Your task to perform on an android device: Clear the shopping cart on bestbuy. Search for logitech g pro on bestbuy, select the first entry, add it to the cart, then select checkout. Image 0: 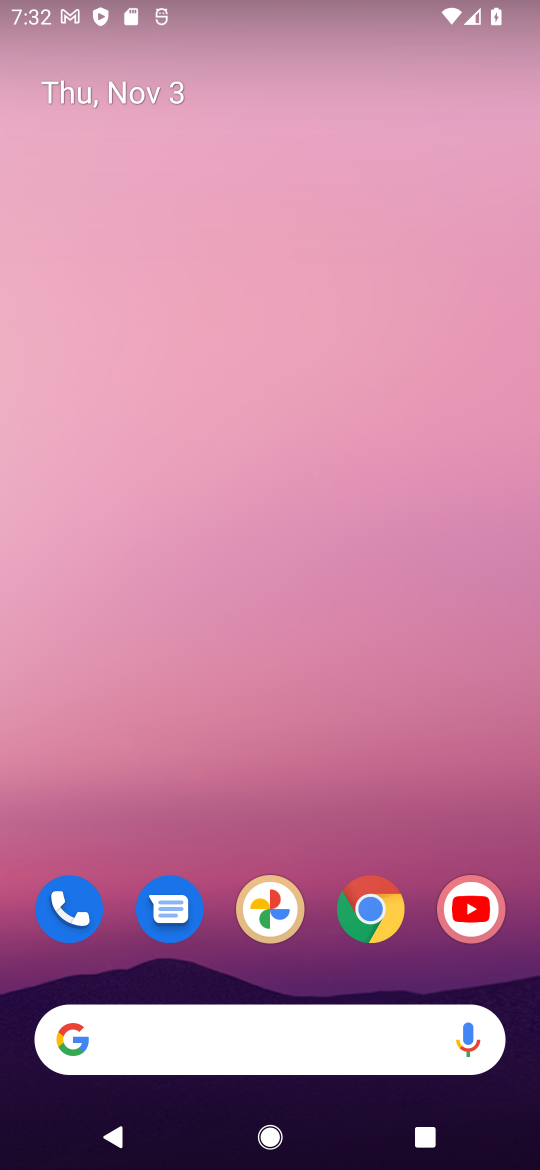
Step 0: drag from (217, 1016) to (255, 103)
Your task to perform on an android device: Clear the shopping cart on bestbuy. Search for logitech g pro on bestbuy, select the first entry, add it to the cart, then select checkout. Image 1: 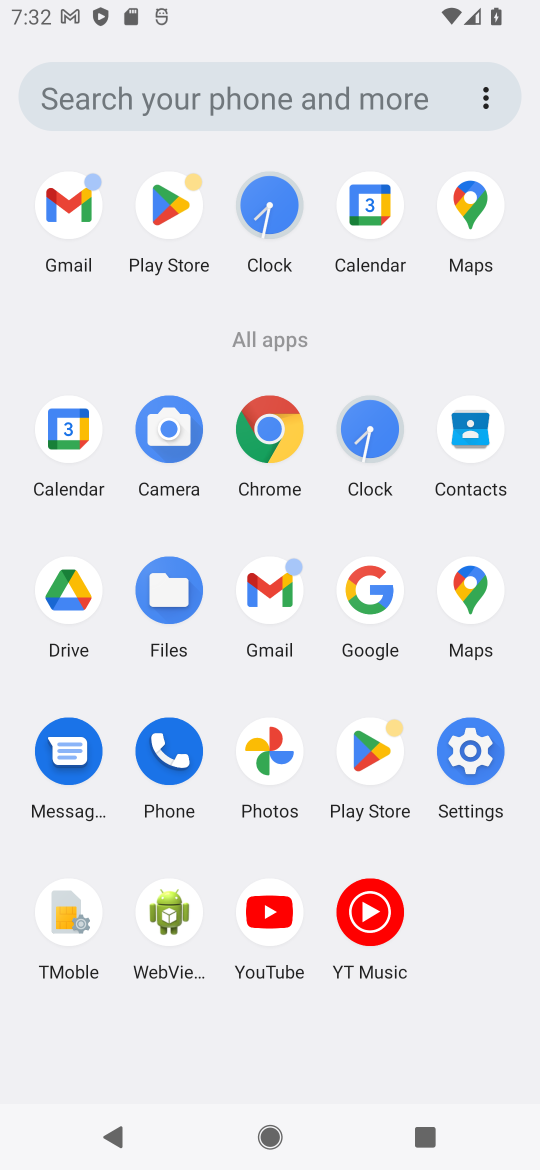
Step 1: click (376, 591)
Your task to perform on an android device: Clear the shopping cart on bestbuy. Search for logitech g pro on bestbuy, select the first entry, add it to the cart, then select checkout. Image 2: 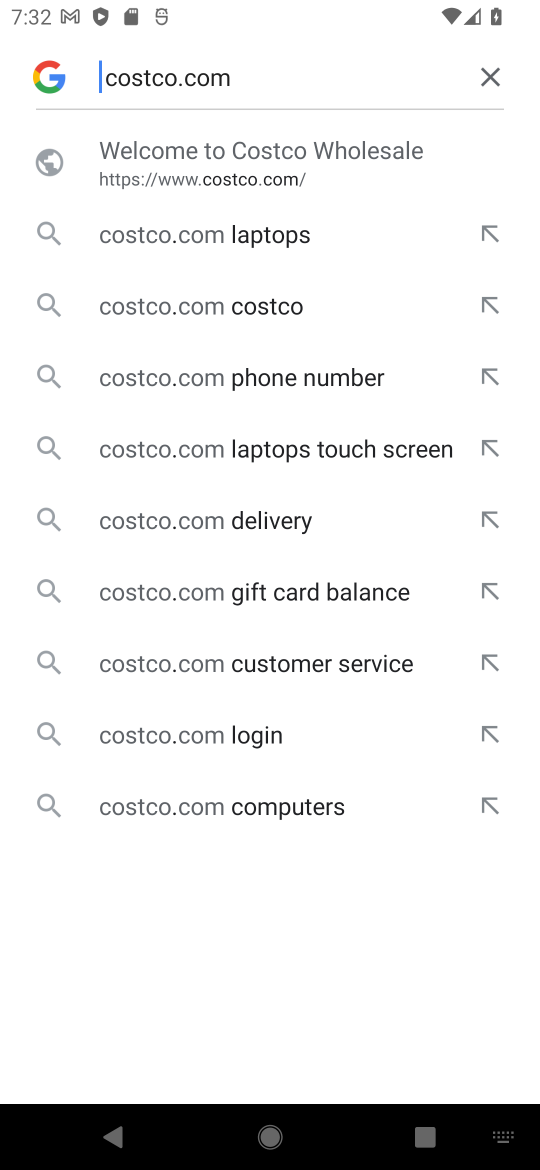
Step 2: click (497, 79)
Your task to perform on an android device: Clear the shopping cart on bestbuy. Search for logitech g pro on bestbuy, select the first entry, add it to the cart, then select checkout. Image 3: 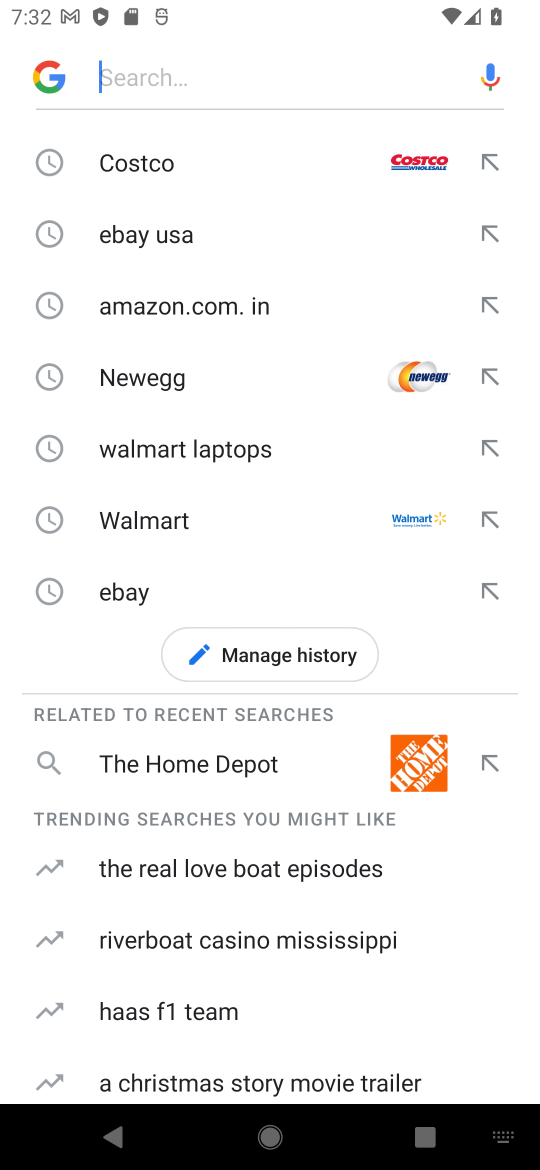
Step 3: click (285, 64)
Your task to perform on an android device: Clear the shopping cart on bestbuy. Search for logitech g pro on bestbuy, select the first entry, add it to the cart, then select checkout. Image 4: 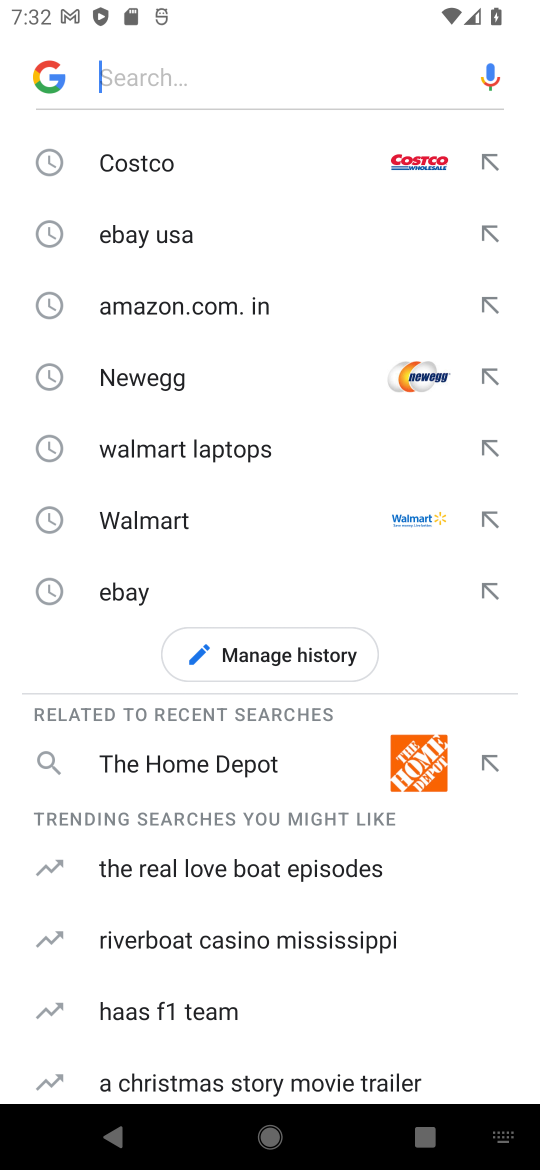
Step 4: type "bestbuy "
Your task to perform on an android device: Clear the shopping cart on bestbuy. Search for logitech g pro on bestbuy, select the first entry, add it to the cart, then select checkout. Image 5: 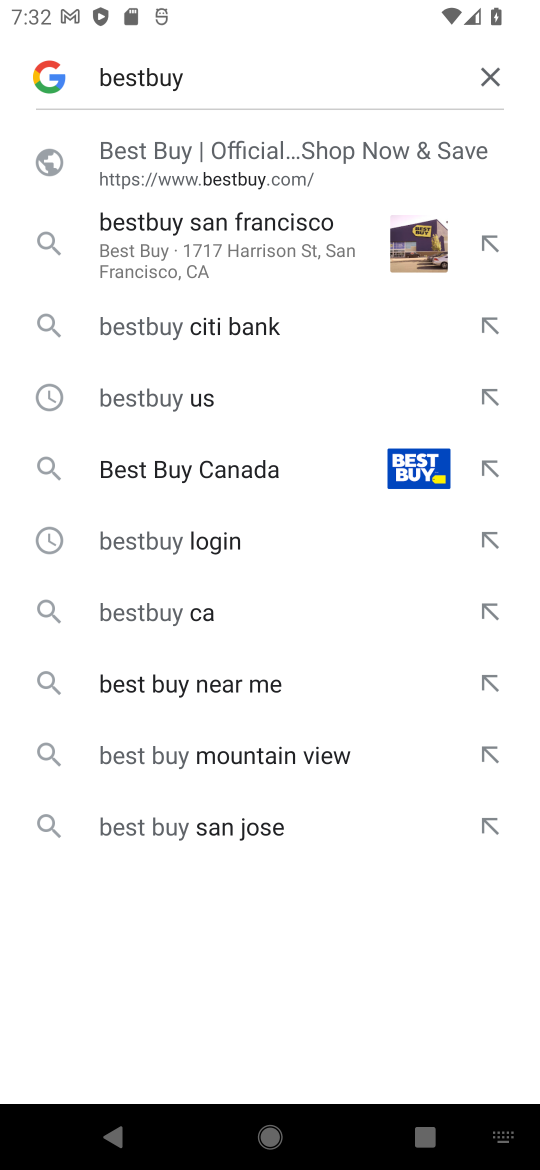
Step 5: click (288, 160)
Your task to perform on an android device: Clear the shopping cart on bestbuy. Search for logitech g pro on bestbuy, select the first entry, add it to the cart, then select checkout. Image 6: 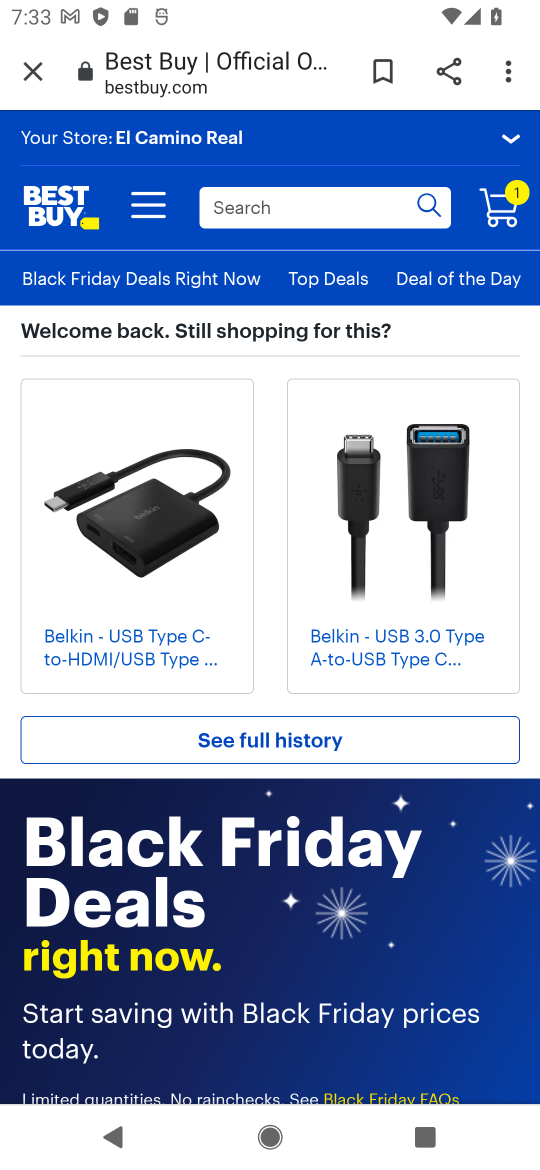
Step 6: click (329, 202)
Your task to perform on an android device: Clear the shopping cart on bestbuy. Search for logitech g pro on bestbuy, select the first entry, add it to the cart, then select checkout. Image 7: 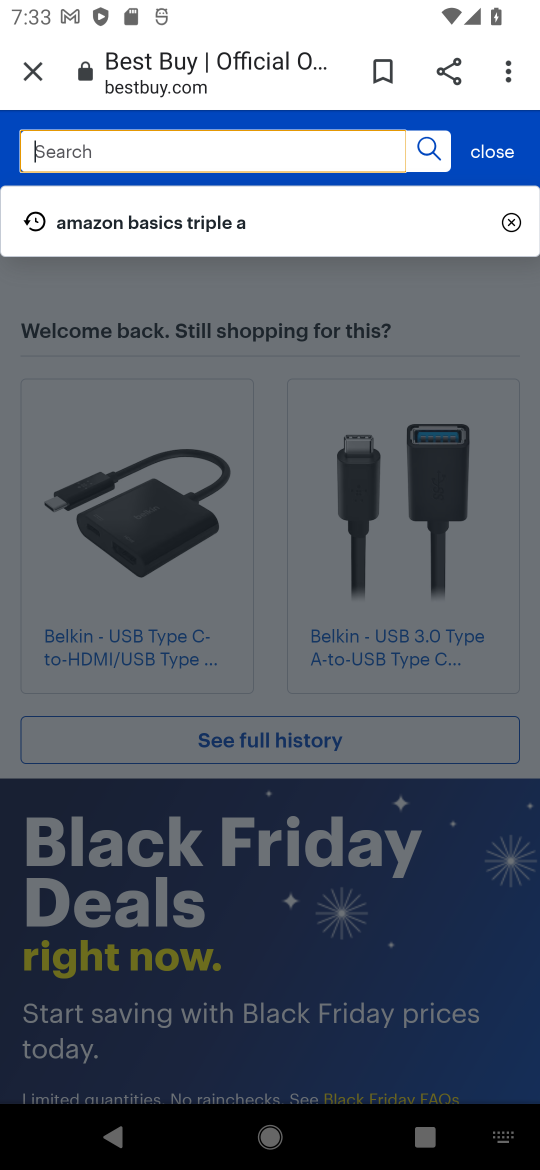
Step 7: type " logitech g pro "
Your task to perform on an android device: Clear the shopping cart on bestbuy. Search for logitech g pro on bestbuy, select the first entry, add it to the cart, then select checkout. Image 8: 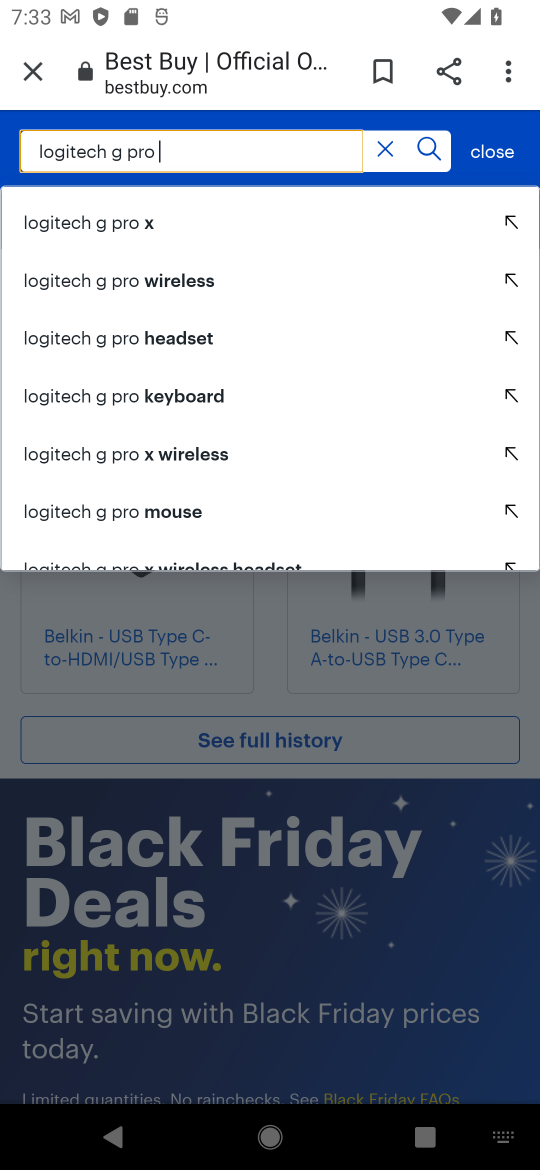
Step 8: click (154, 226)
Your task to perform on an android device: Clear the shopping cart on bestbuy. Search for logitech g pro on bestbuy, select the first entry, add it to the cart, then select checkout. Image 9: 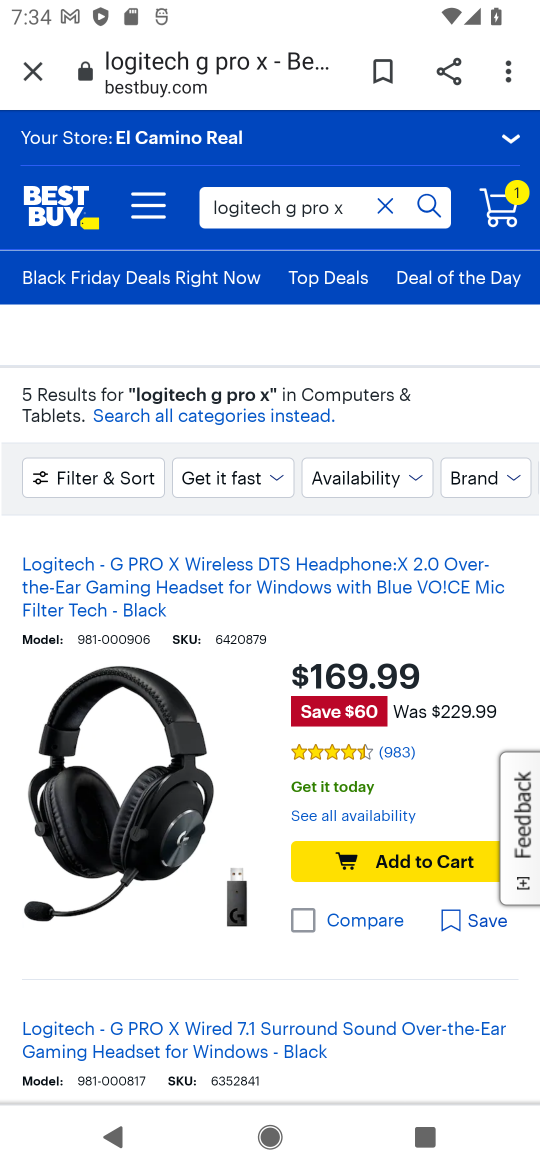
Step 9: click (368, 851)
Your task to perform on an android device: Clear the shopping cart on bestbuy. Search for logitech g pro on bestbuy, select the first entry, add it to the cart, then select checkout. Image 10: 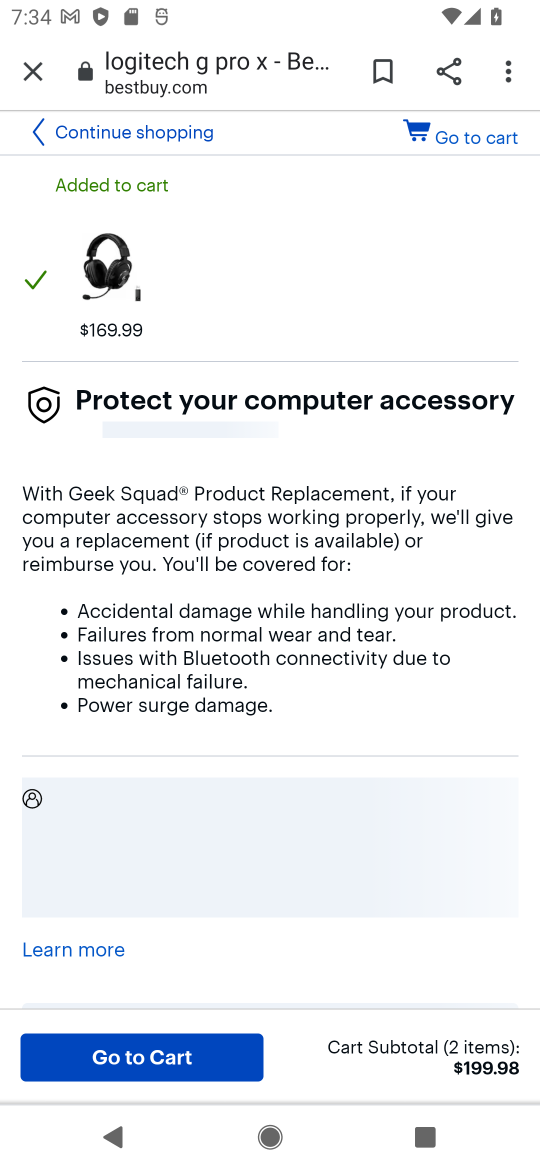
Step 10: task complete